Your task to perform on an android device: Turn on the flashlight Image 0: 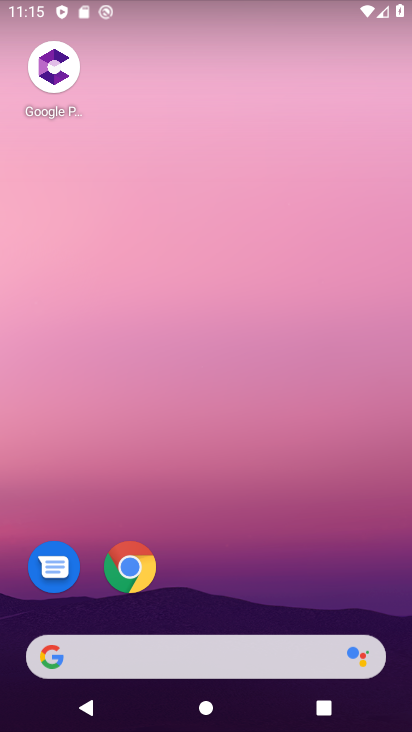
Step 0: drag from (231, 606) to (276, 222)
Your task to perform on an android device: Turn on the flashlight Image 1: 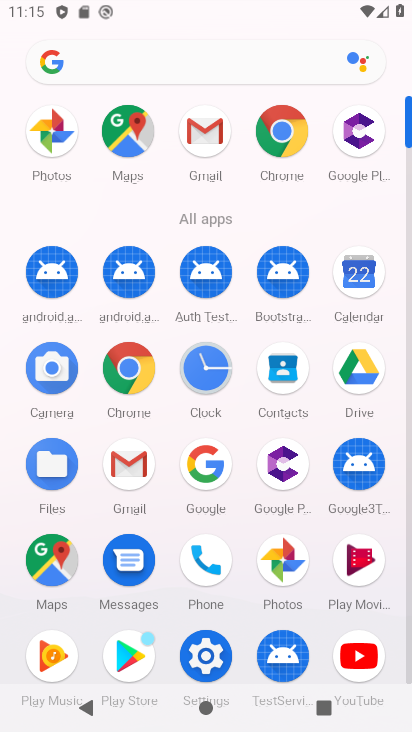
Step 1: click (204, 659)
Your task to perform on an android device: Turn on the flashlight Image 2: 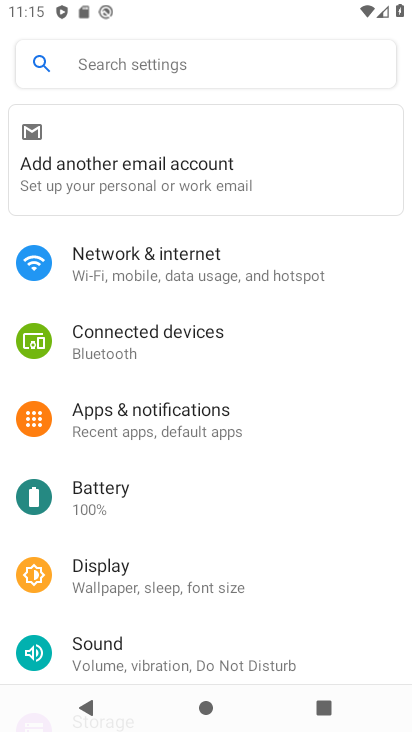
Step 2: click (141, 589)
Your task to perform on an android device: Turn on the flashlight Image 3: 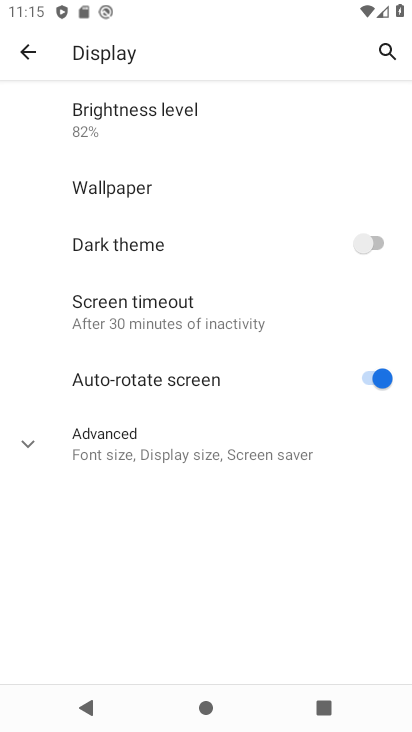
Step 3: task complete